Your task to perform on an android device: turn off translation in the chrome app Image 0: 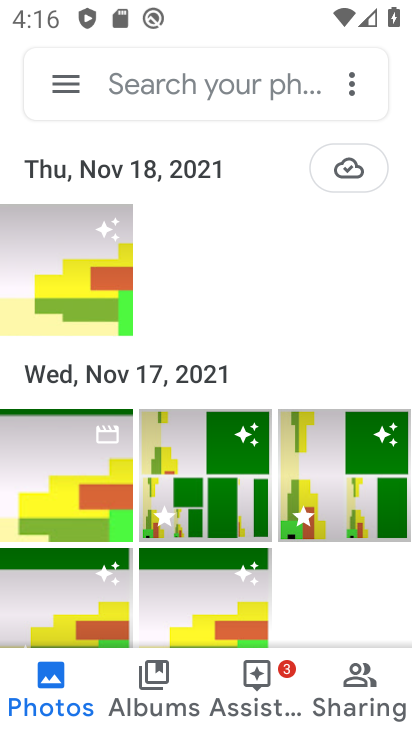
Step 0: press home button
Your task to perform on an android device: turn off translation in the chrome app Image 1: 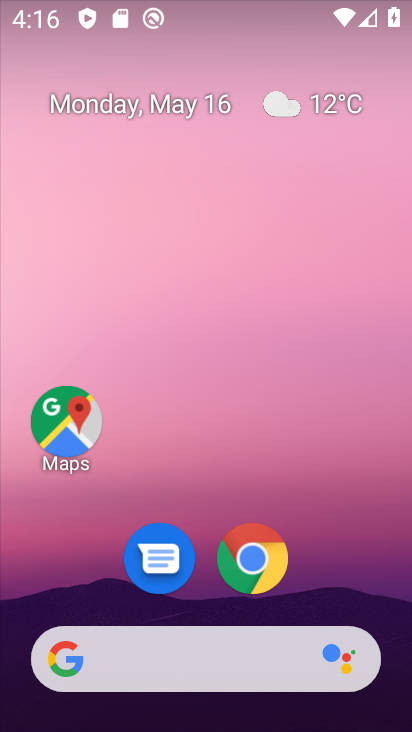
Step 1: drag from (363, 571) to (377, 685)
Your task to perform on an android device: turn off translation in the chrome app Image 2: 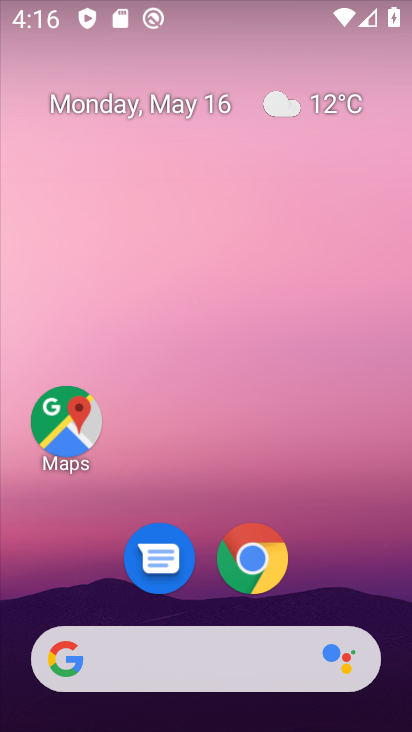
Step 2: click (279, 556)
Your task to perform on an android device: turn off translation in the chrome app Image 3: 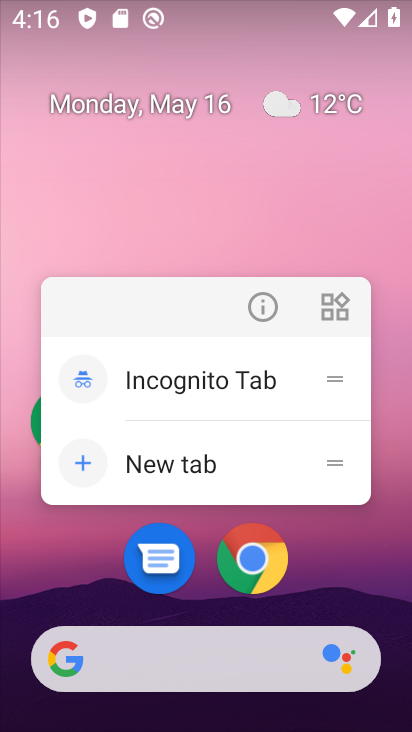
Step 3: click (279, 556)
Your task to perform on an android device: turn off translation in the chrome app Image 4: 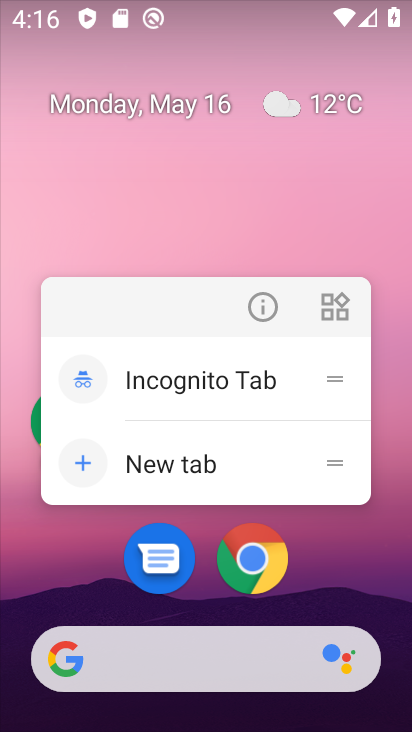
Step 4: click (260, 576)
Your task to perform on an android device: turn off translation in the chrome app Image 5: 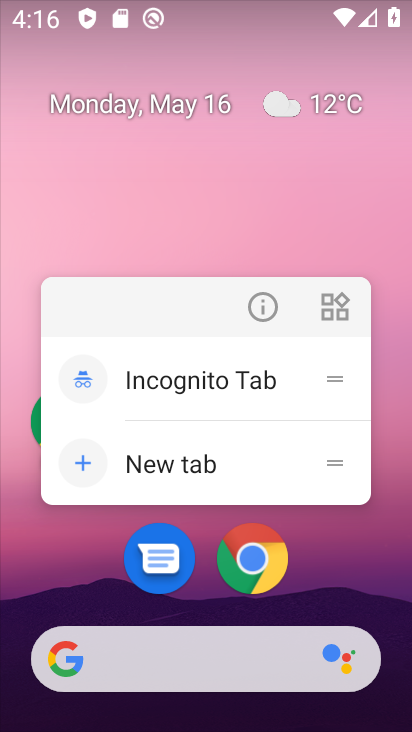
Step 5: click (258, 559)
Your task to perform on an android device: turn off translation in the chrome app Image 6: 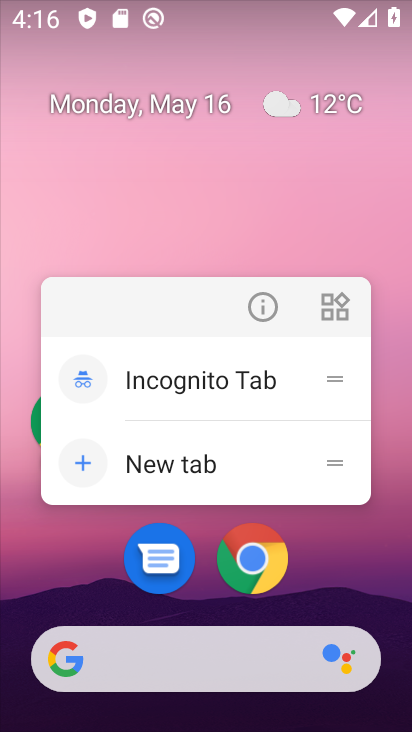
Step 6: click (261, 562)
Your task to perform on an android device: turn off translation in the chrome app Image 7: 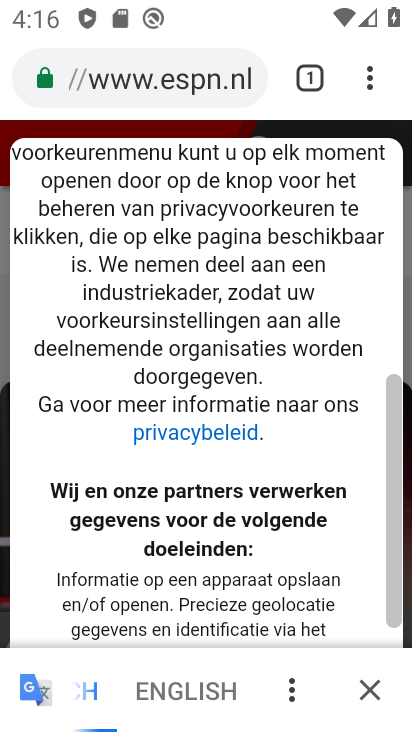
Step 7: drag from (368, 75) to (279, 597)
Your task to perform on an android device: turn off translation in the chrome app Image 8: 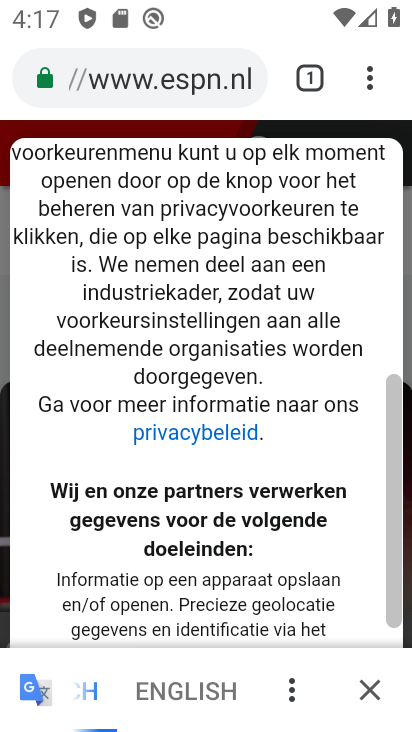
Step 8: drag from (369, 79) to (231, 638)
Your task to perform on an android device: turn off translation in the chrome app Image 9: 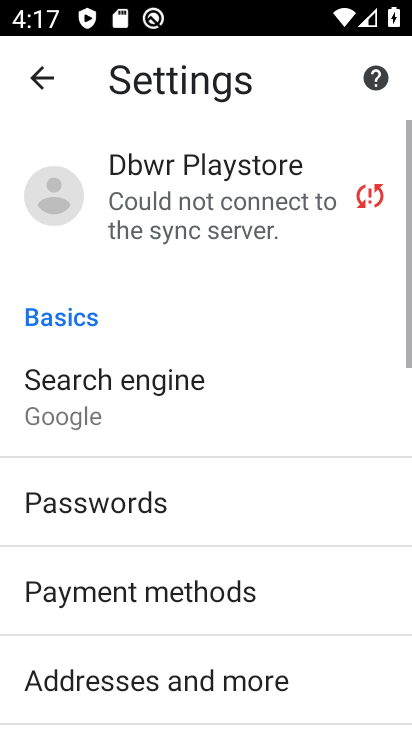
Step 9: drag from (210, 591) to (206, 148)
Your task to perform on an android device: turn off translation in the chrome app Image 10: 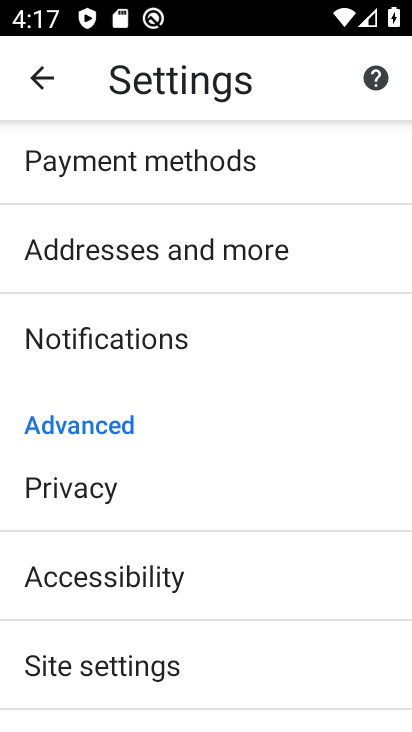
Step 10: drag from (213, 662) to (226, 400)
Your task to perform on an android device: turn off translation in the chrome app Image 11: 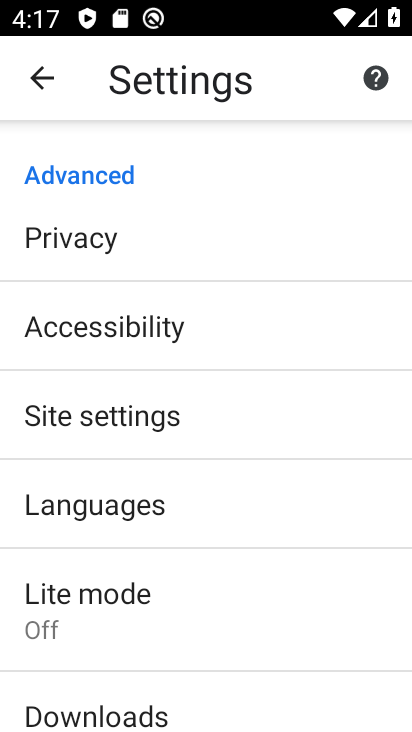
Step 11: click (203, 515)
Your task to perform on an android device: turn off translation in the chrome app Image 12: 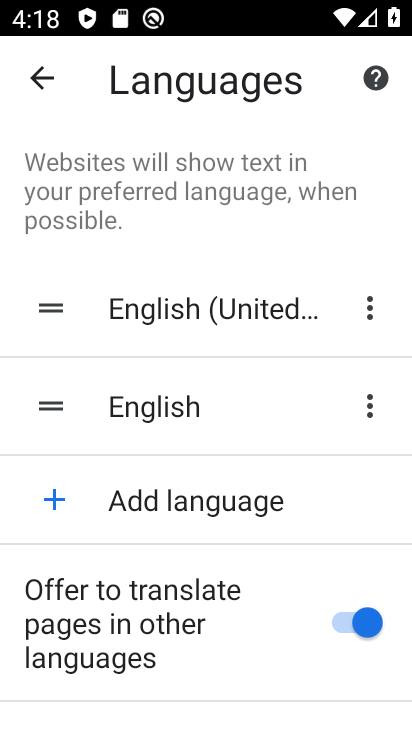
Step 12: click (353, 617)
Your task to perform on an android device: turn off translation in the chrome app Image 13: 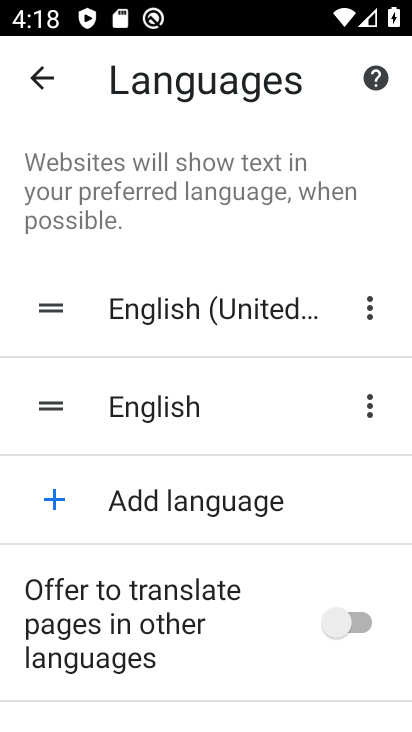
Step 13: task complete